Your task to perform on an android device: Open privacy settings Image 0: 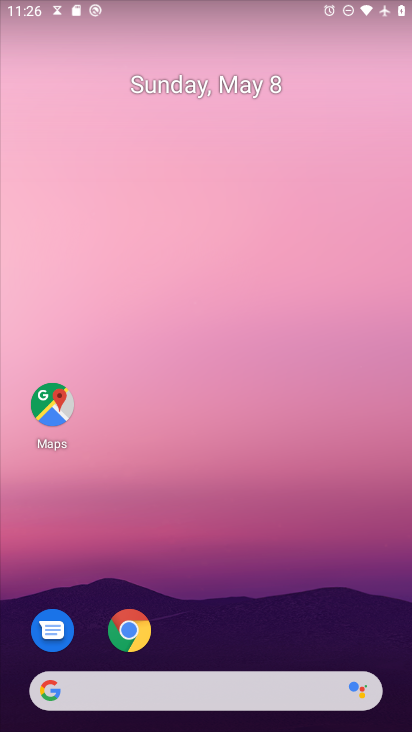
Step 0: drag from (206, 692) to (335, 124)
Your task to perform on an android device: Open privacy settings Image 1: 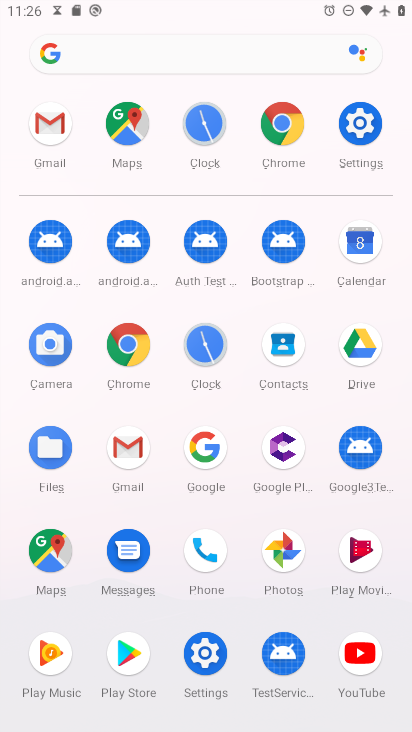
Step 1: click (354, 129)
Your task to perform on an android device: Open privacy settings Image 2: 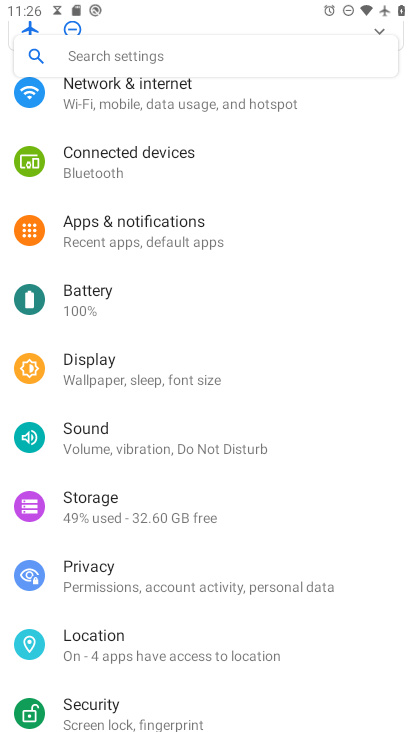
Step 2: click (101, 575)
Your task to perform on an android device: Open privacy settings Image 3: 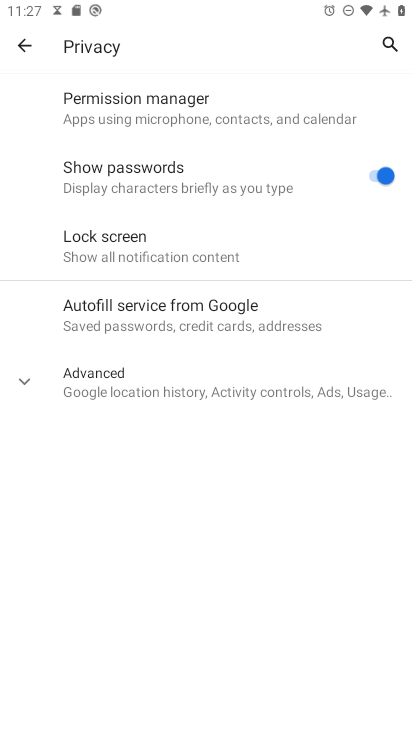
Step 3: task complete